Your task to perform on an android device: turn off sleep mode Image 0: 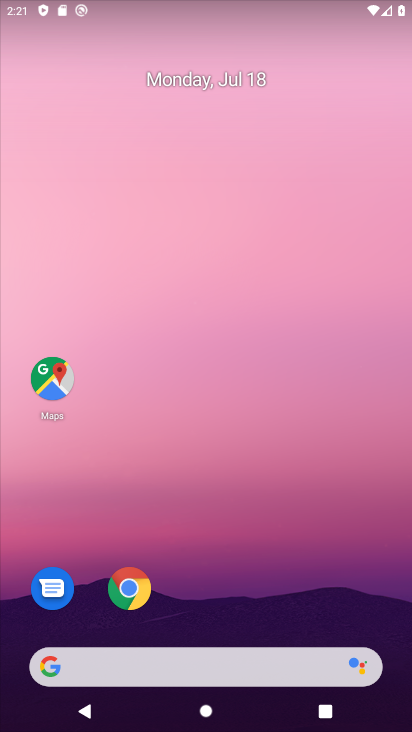
Step 0: drag from (257, 608) to (190, 0)
Your task to perform on an android device: turn off sleep mode Image 1: 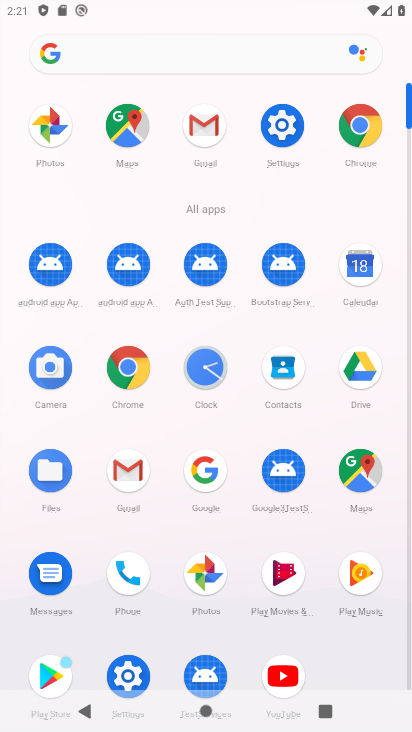
Step 1: click (273, 130)
Your task to perform on an android device: turn off sleep mode Image 2: 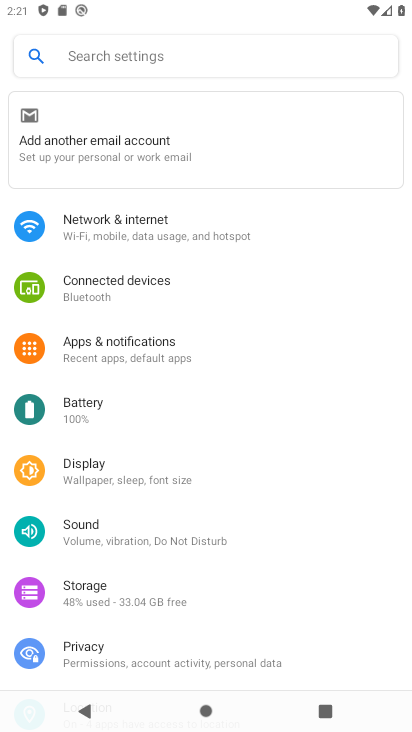
Step 2: click (135, 479)
Your task to perform on an android device: turn off sleep mode Image 3: 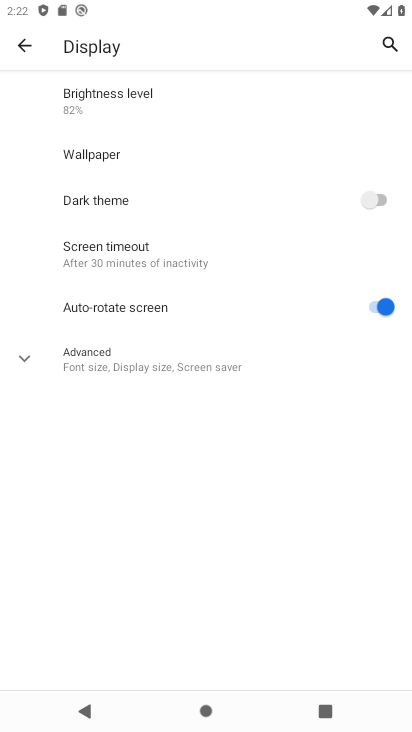
Step 3: click (118, 265)
Your task to perform on an android device: turn off sleep mode Image 4: 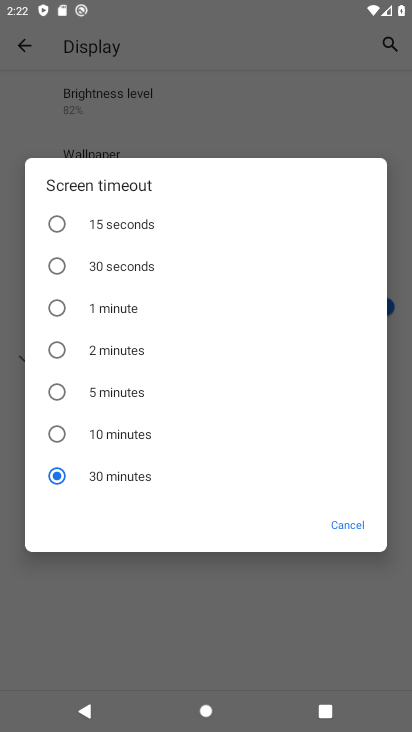
Step 4: task complete